Your task to perform on an android device: Go to Google Image 0: 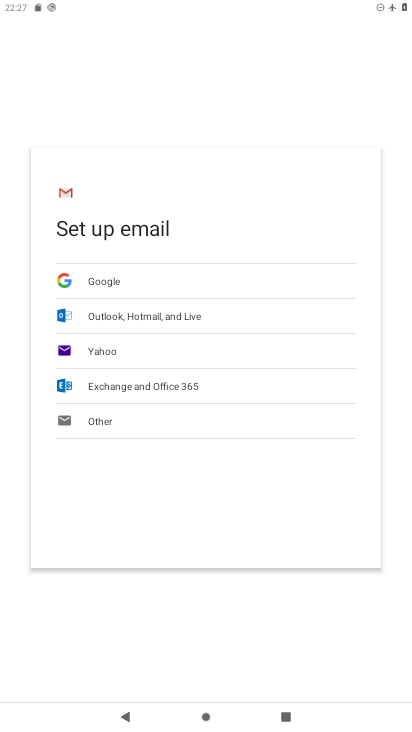
Step 0: drag from (328, 610) to (288, 246)
Your task to perform on an android device: Go to Google Image 1: 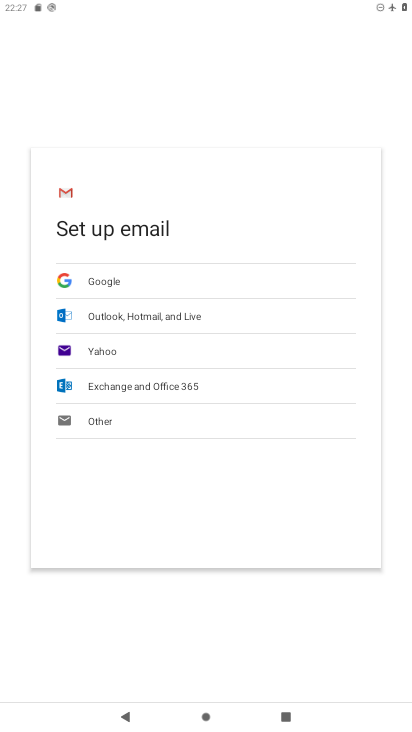
Step 1: press home button
Your task to perform on an android device: Go to Google Image 2: 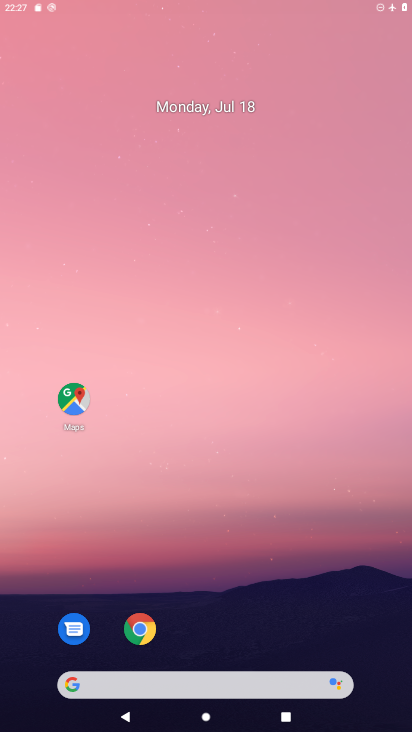
Step 2: drag from (259, 628) to (251, 186)
Your task to perform on an android device: Go to Google Image 3: 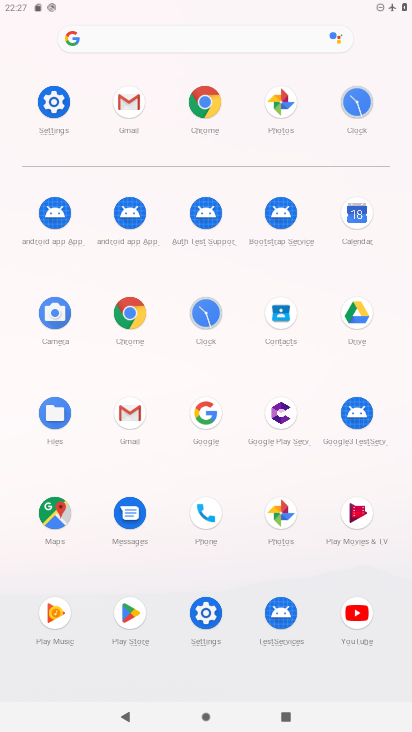
Step 3: click (201, 405)
Your task to perform on an android device: Go to Google Image 4: 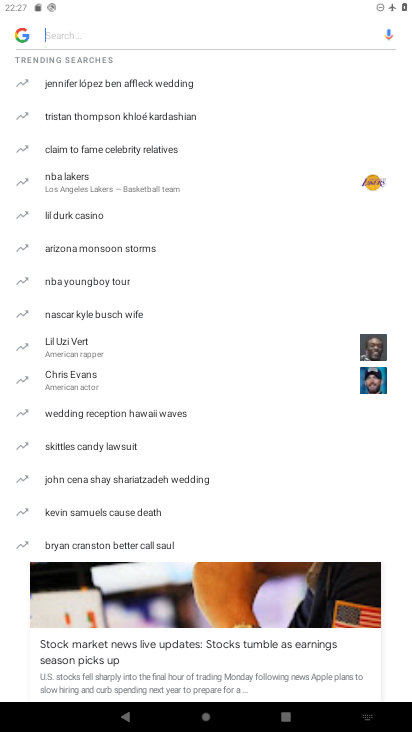
Step 4: task complete